Your task to perform on an android device: change notification settings in the gmail app Image 0: 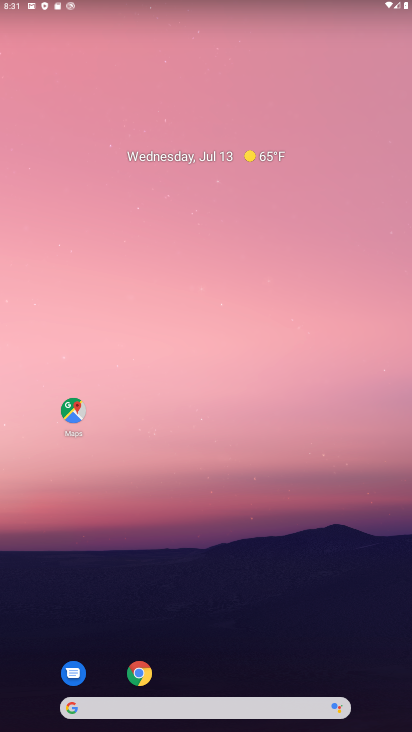
Step 0: drag from (214, 700) to (245, 226)
Your task to perform on an android device: change notification settings in the gmail app Image 1: 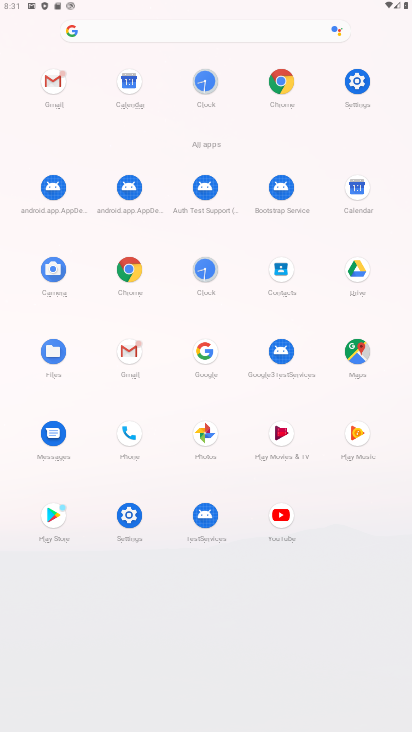
Step 1: click (53, 81)
Your task to perform on an android device: change notification settings in the gmail app Image 2: 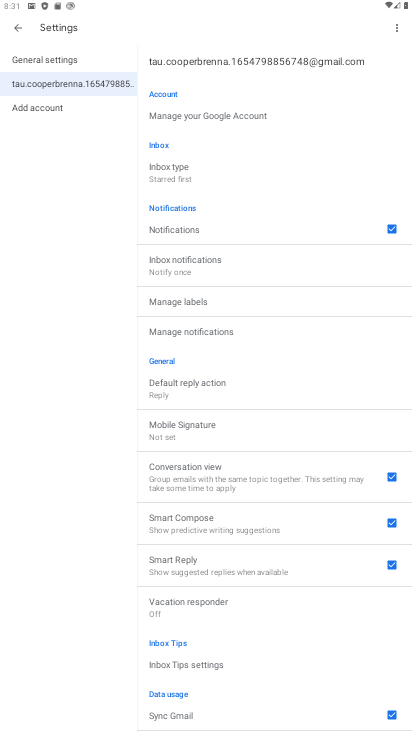
Step 2: click (194, 331)
Your task to perform on an android device: change notification settings in the gmail app Image 3: 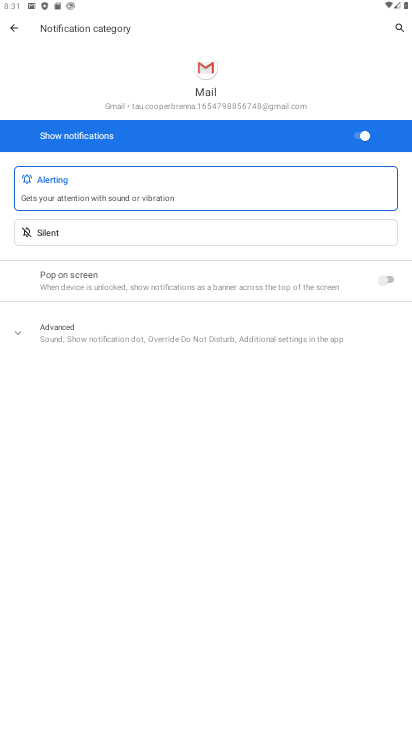
Step 3: click (360, 137)
Your task to perform on an android device: change notification settings in the gmail app Image 4: 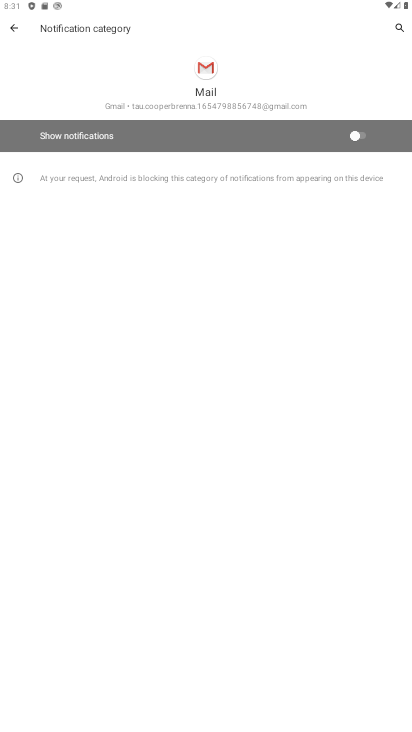
Step 4: task complete